Your task to perform on an android device: What's the weather? Image 0: 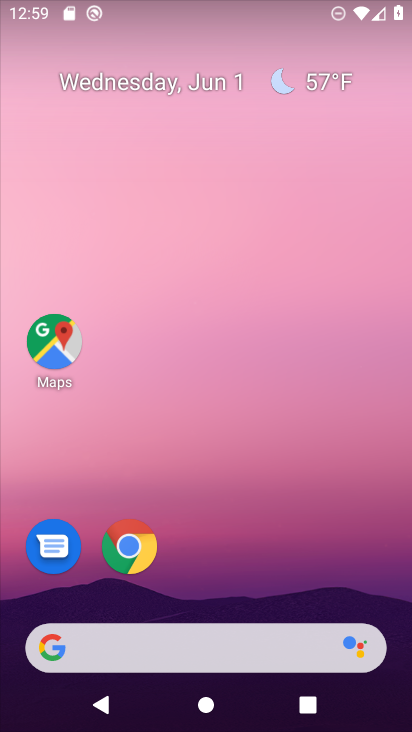
Step 0: click (205, 647)
Your task to perform on an android device: What's the weather? Image 1: 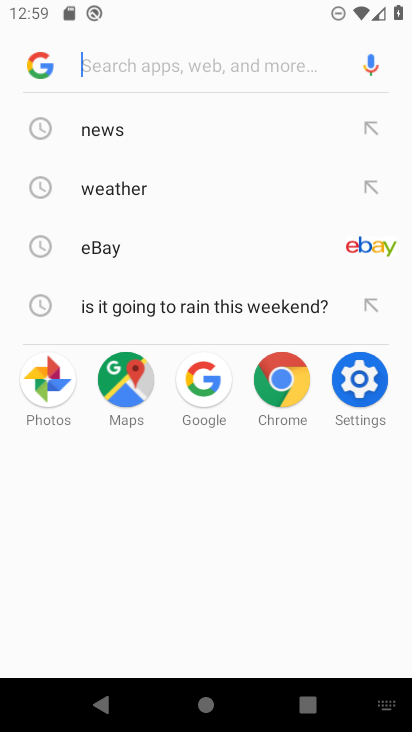
Step 1: click (104, 185)
Your task to perform on an android device: What's the weather? Image 2: 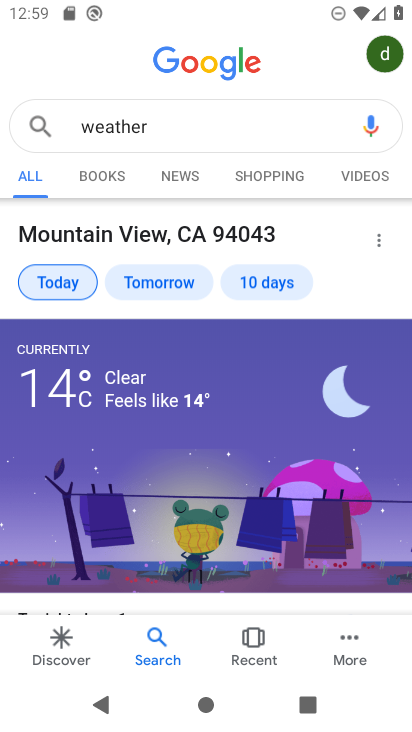
Step 2: task complete